Your task to perform on an android device: Toggle the flashlight Image 0: 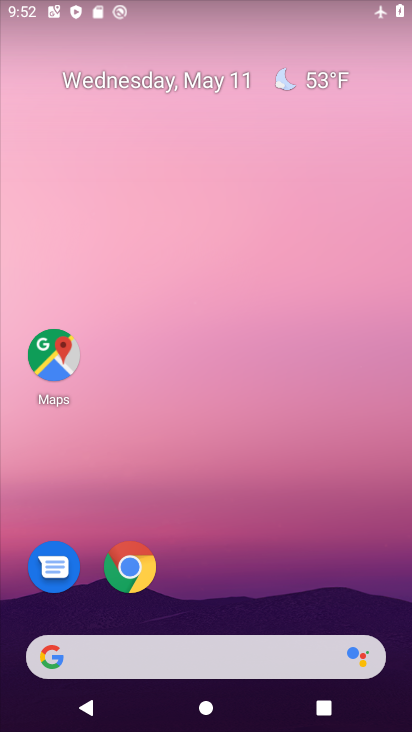
Step 0: drag from (279, 14) to (345, 670)
Your task to perform on an android device: Toggle the flashlight Image 1: 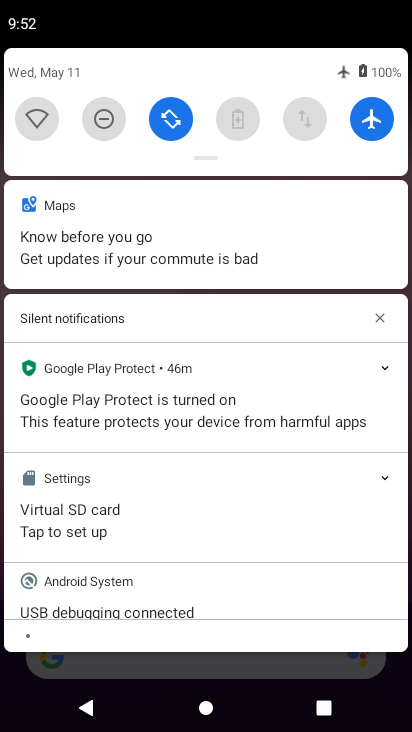
Step 1: task complete